Your task to perform on an android device: Open the phone app and click the voicemail tab. Image 0: 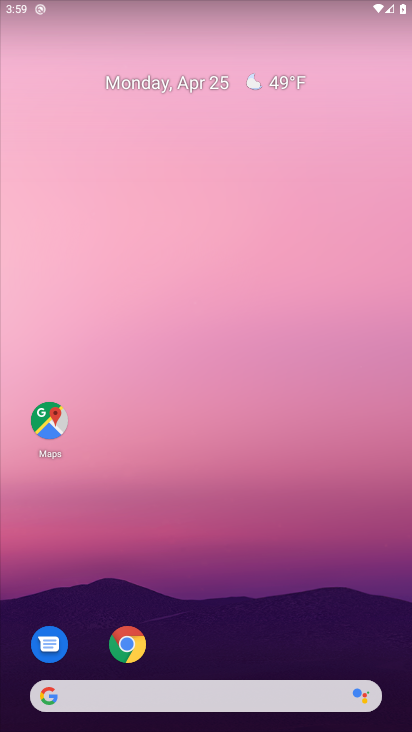
Step 0: drag from (298, 648) to (235, 57)
Your task to perform on an android device: Open the phone app and click the voicemail tab. Image 1: 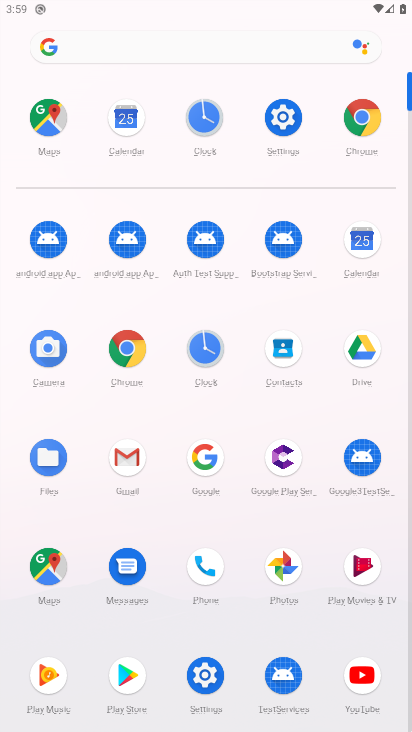
Step 1: click (203, 546)
Your task to perform on an android device: Open the phone app and click the voicemail tab. Image 2: 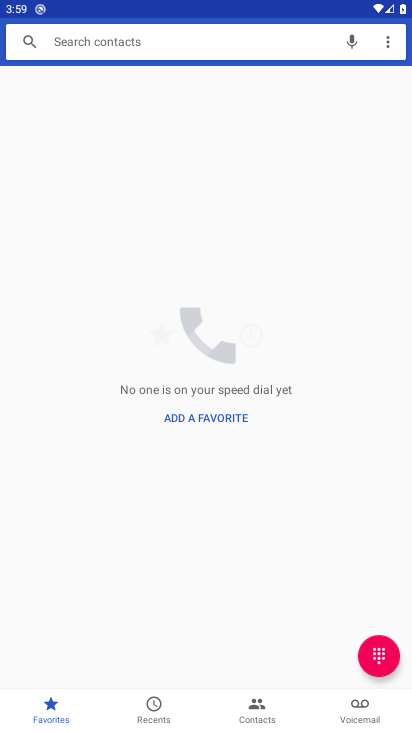
Step 2: click (351, 710)
Your task to perform on an android device: Open the phone app and click the voicemail tab. Image 3: 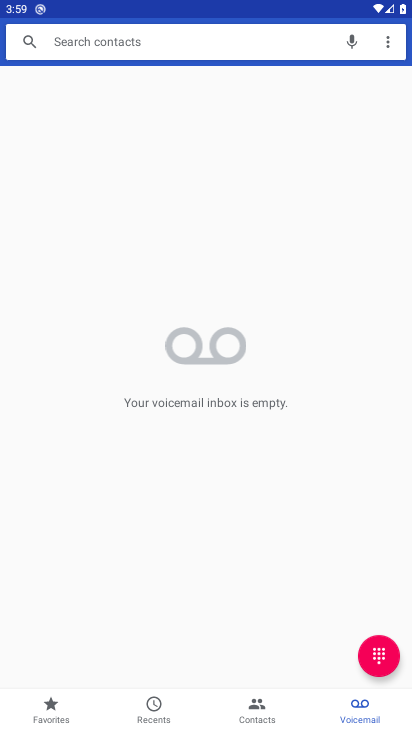
Step 3: task complete